Your task to perform on an android device: check google app version Image 0: 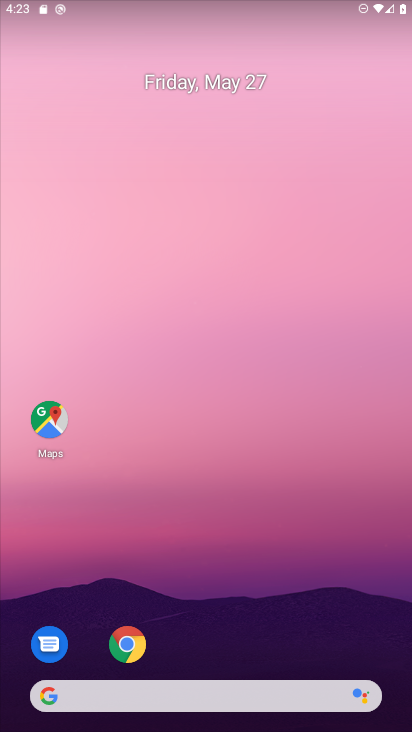
Step 0: click (92, 703)
Your task to perform on an android device: check google app version Image 1: 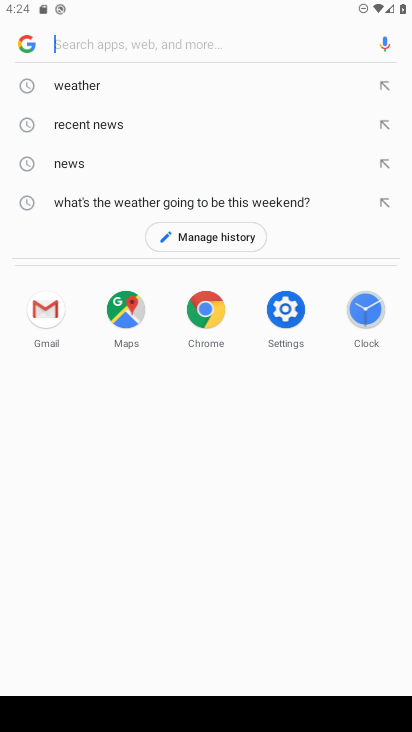
Step 1: click (37, 45)
Your task to perform on an android device: check google app version Image 2: 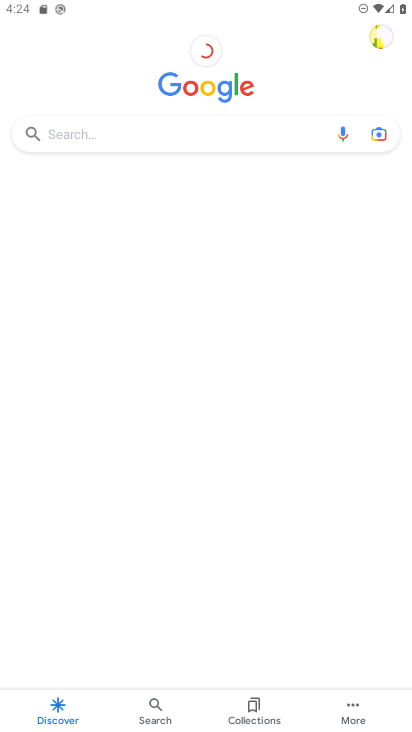
Step 2: click (358, 716)
Your task to perform on an android device: check google app version Image 3: 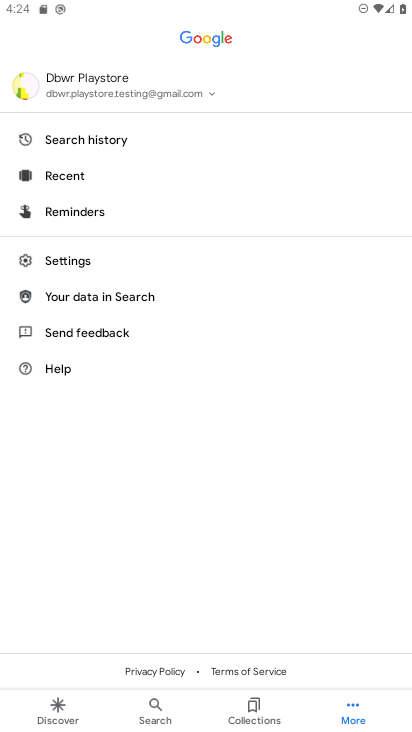
Step 3: click (92, 272)
Your task to perform on an android device: check google app version Image 4: 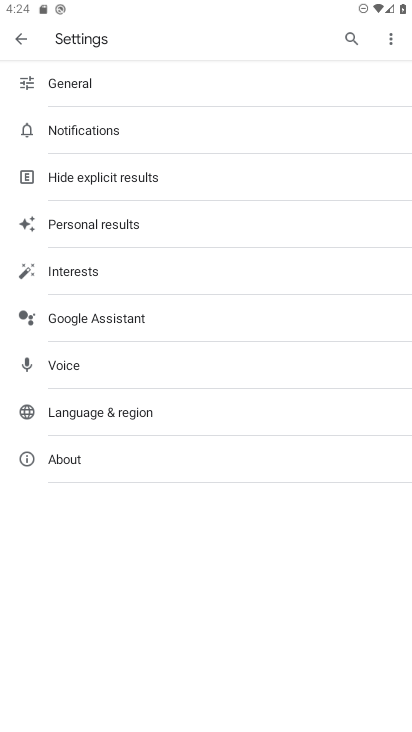
Step 4: click (67, 447)
Your task to perform on an android device: check google app version Image 5: 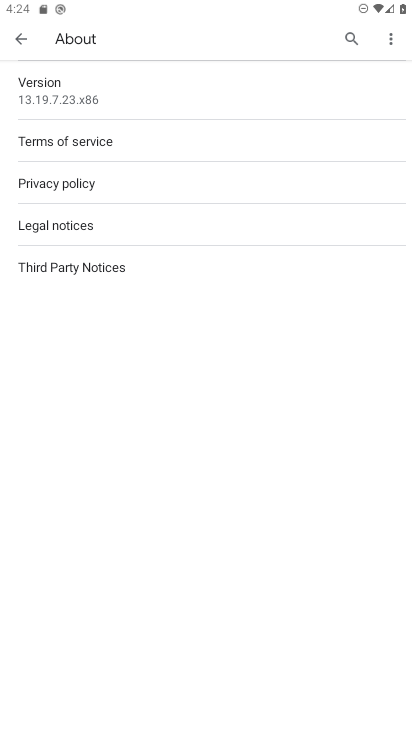
Step 5: task complete